Your task to perform on an android device: create a new album in the google photos Image 0: 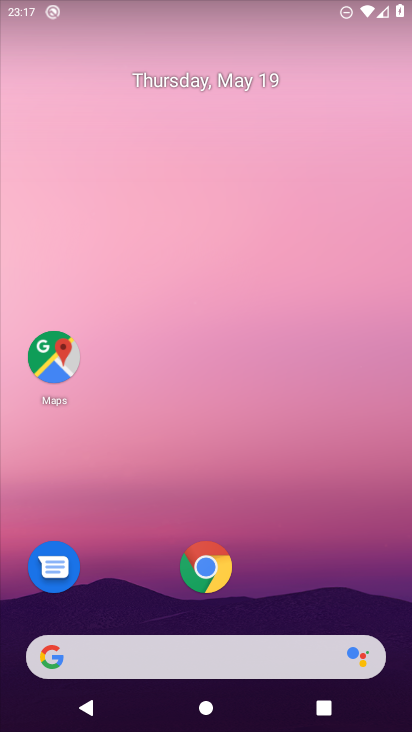
Step 0: press home button
Your task to perform on an android device: create a new album in the google photos Image 1: 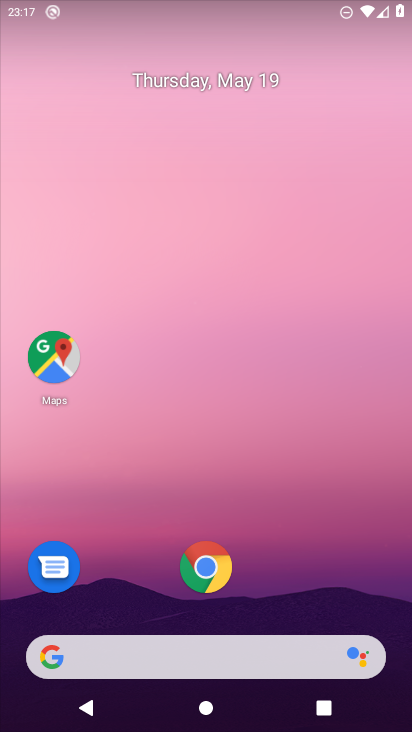
Step 1: drag from (256, 604) to (292, 104)
Your task to perform on an android device: create a new album in the google photos Image 2: 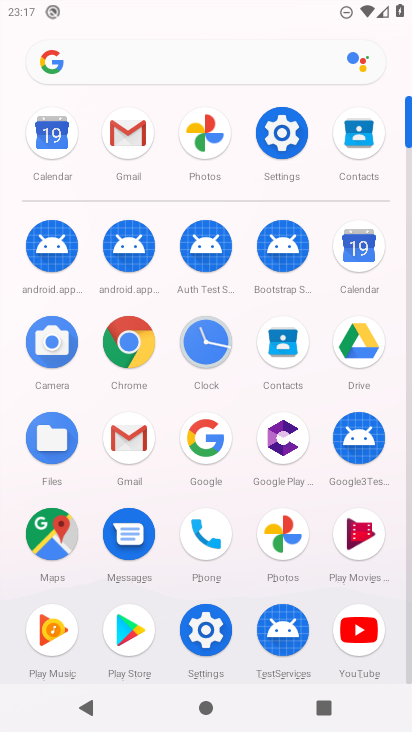
Step 2: click (279, 526)
Your task to perform on an android device: create a new album in the google photos Image 3: 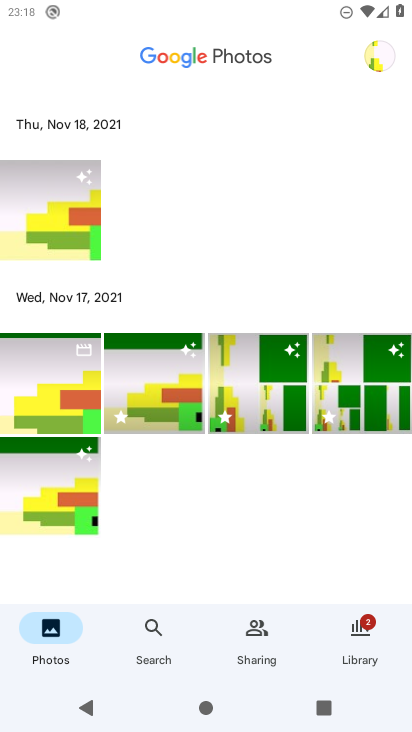
Step 3: click (260, 629)
Your task to perform on an android device: create a new album in the google photos Image 4: 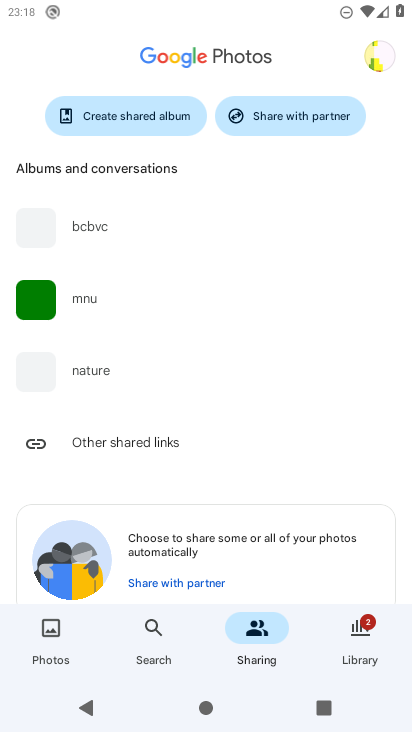
Step 4: click (138, 106)
Your task to perform on an android device: create a new album in the google photos Image 5: 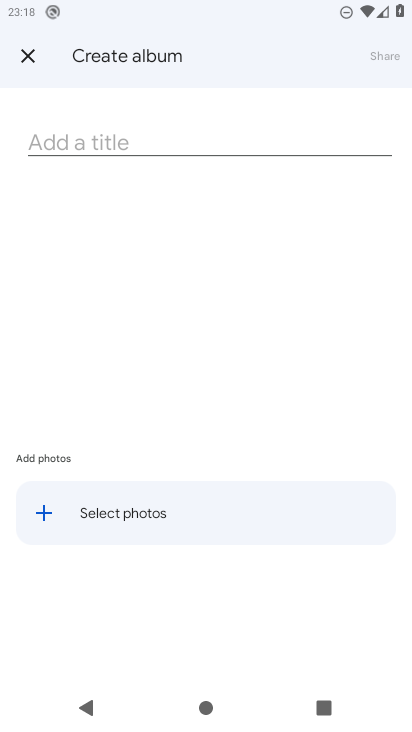
Step 5: click (51, 507)
Your task to perform on an android device: create a new album in the google photos Image 6: 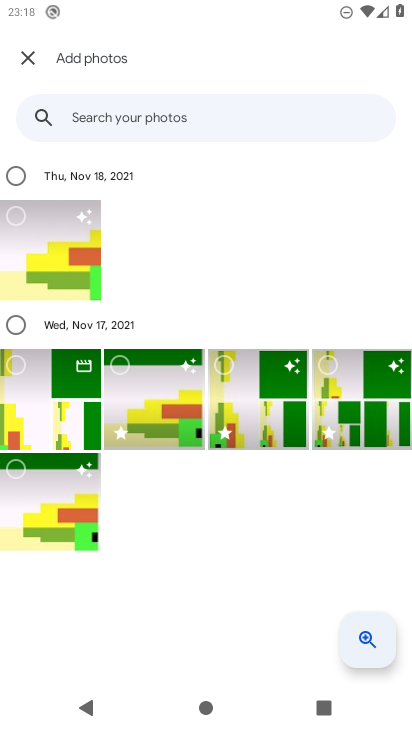
Step 6: click (33, 377)
Your task to perform on an android device: create a new album in the google photos Image 7: 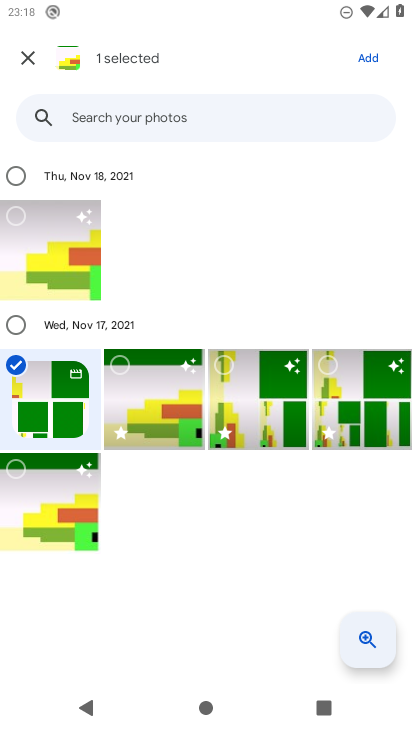
Step 7: click (365, 59)
Your task to perform on an android device: create a new album in the google photos Image 8: 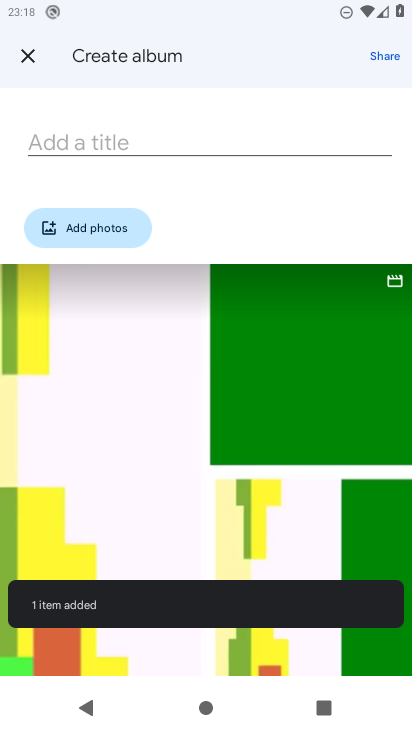
Step 8: click (123, 143)
Your task to perform on an android device: create a new album in the google photos Image 9: 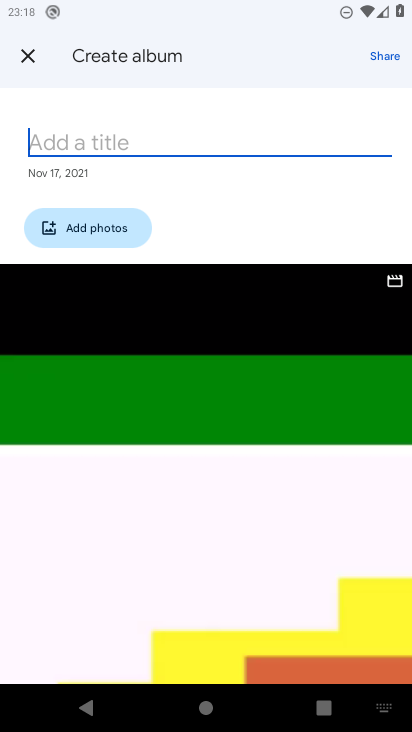
Step 9: type "vbghnhn"
Your task to perform on an android device: create a new album in the google photos Image 10: 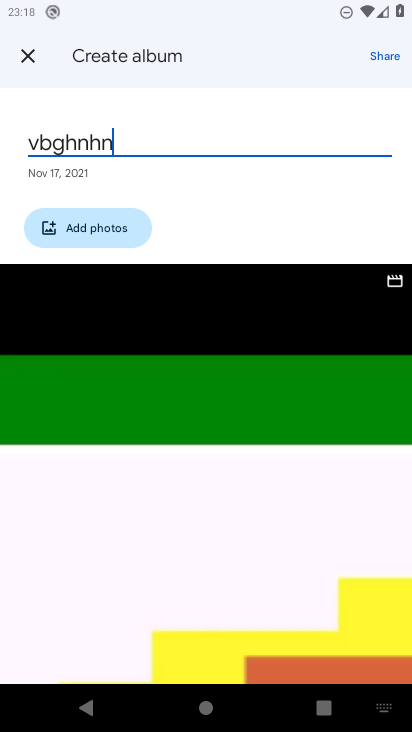
Step 10: type ""
Your task to perform on an android device: create a new album in the google photos Image 11: 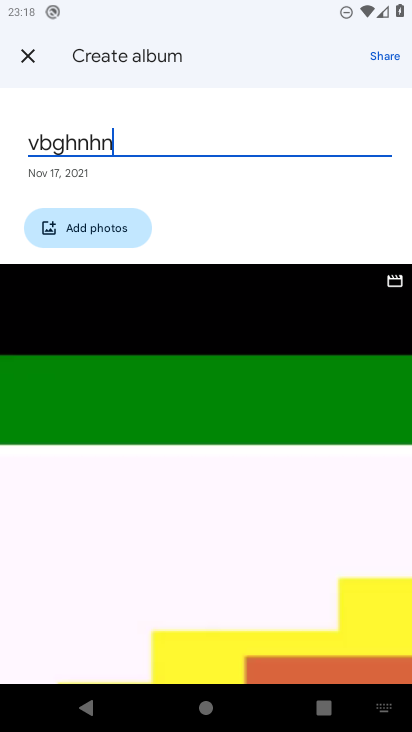
Step 11: click (271, 232)
Your task to perform on an android device: create a new album in the google photos Image 12: 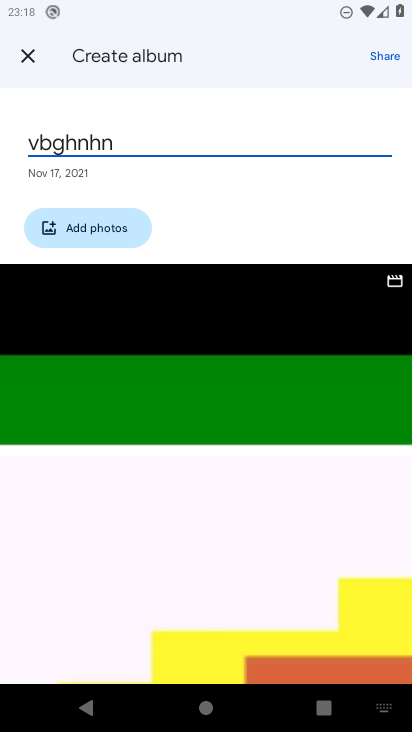
Step 12: task complete